Your task to perform on an android device: Open network settings Image 0: 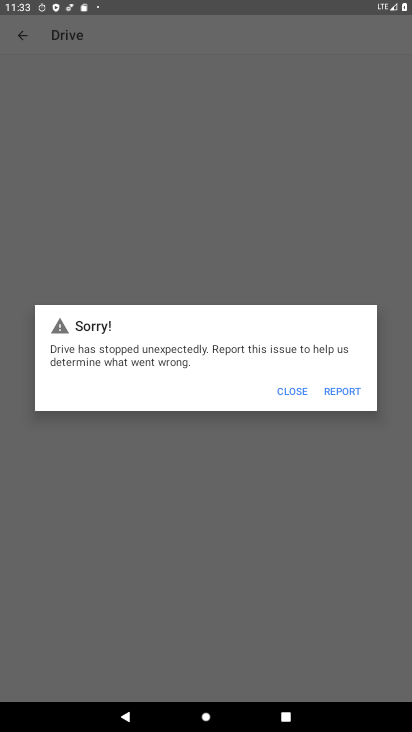
Step 0: press home button
Your task to perform on an android device: Open network settings Image 1: 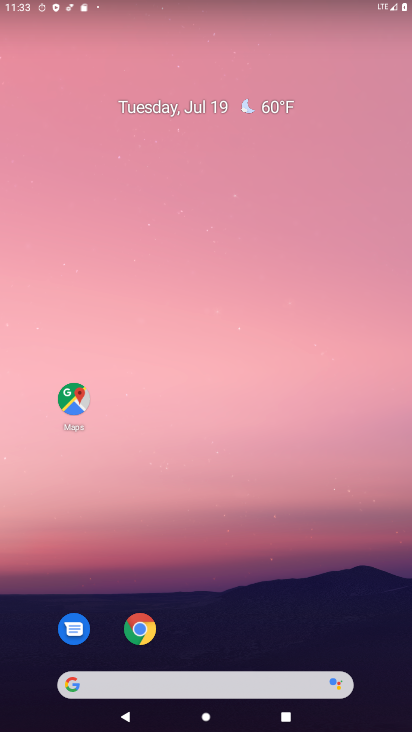
Step 1: drag from (297, 582) to (259, 109)
Your task to perform on an android device: Open network settings Image 2: 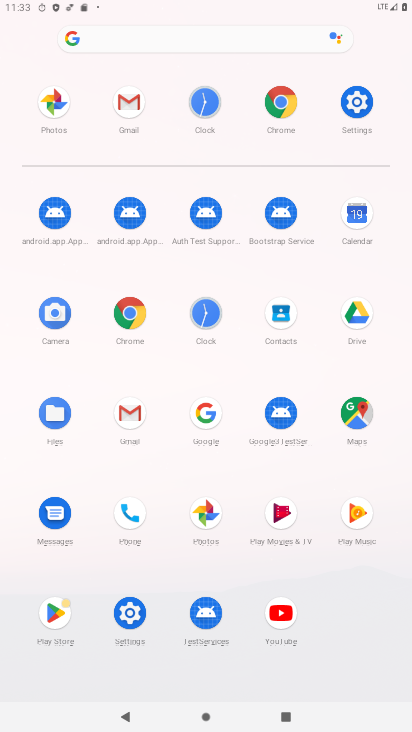
Step 2: click (355, 99)
Your task to perform on an android device: Open network settings Image 3: 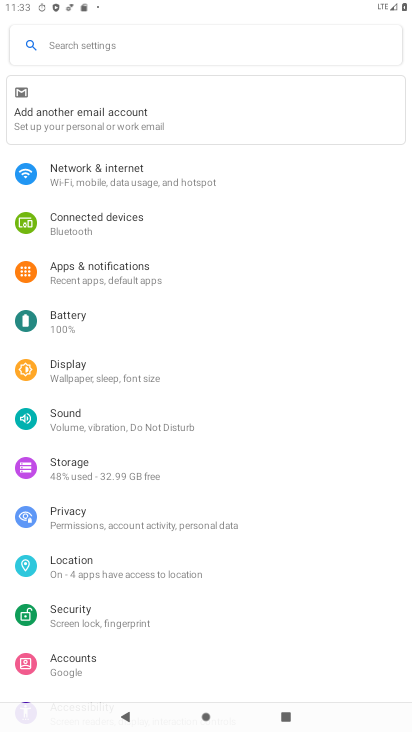
Step 3: click (129, 189)
Your task to perform on an android device: Open network settings Image 4: 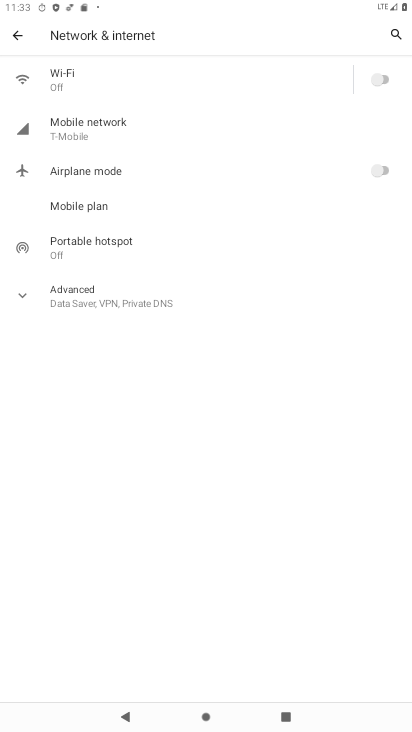
Step 4: task complete